Your task to perform on an android device: turn on improve location accuracy Image 0: 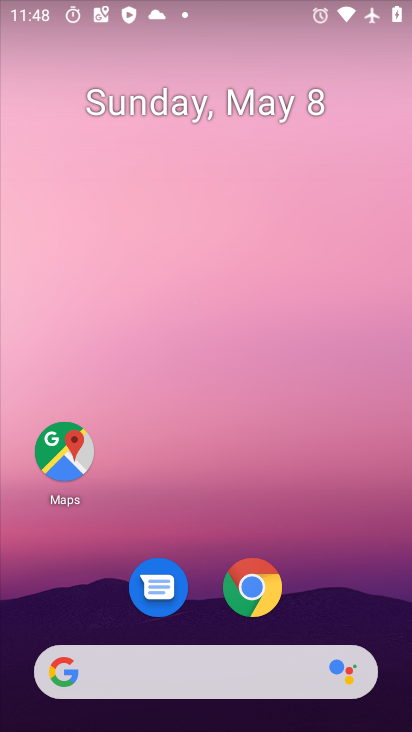
Step 0: drag from (345, 559) to (405, 524)
Your task to perform on an android device: turn on improve location accuracy Image 1: 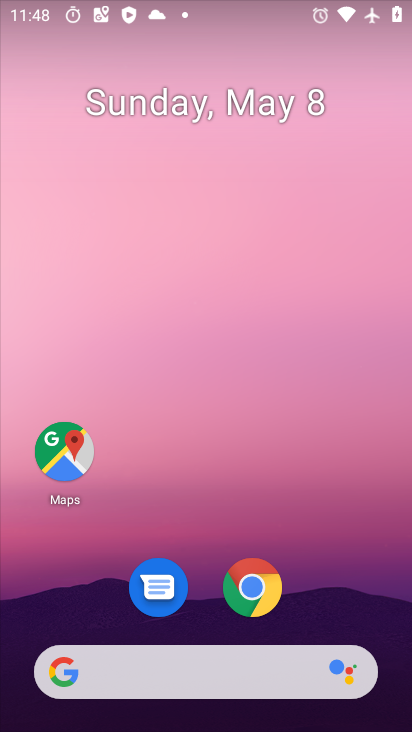
Step 1: drag from (338, 596) to (164, 247)
Your task to perform on an android device: turn on improve location accuracy Image 2: 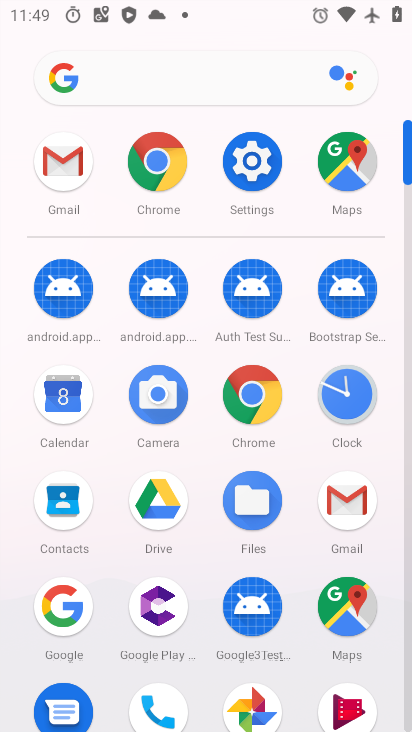
Step 2: click (244, 159)
Your task to perform on an android device: turn on improve location accuracy Image 3: 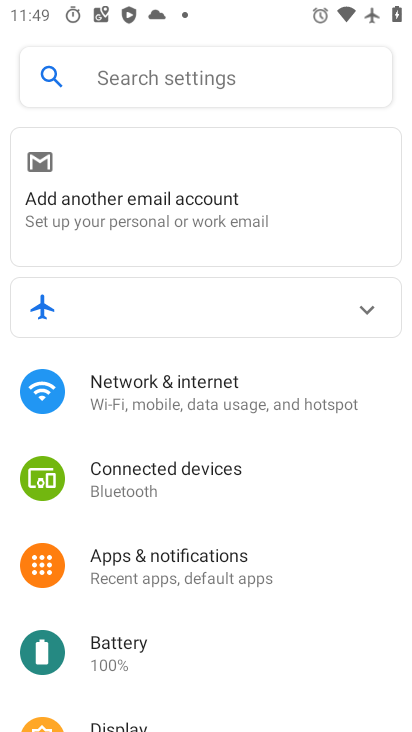
Step 3: drag from (234, 550) to (151, 220)
Your task to perform on an android device: turn on improve location accuracy Image 4: 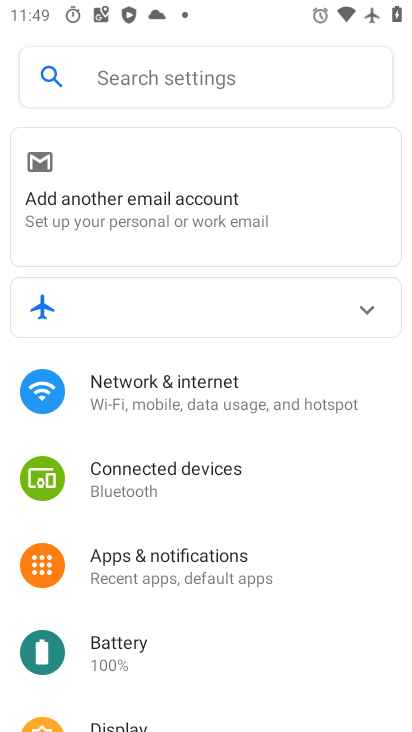
Step 4: drag from (151, 583) to (149, 288)
Your task to perform on an android device: turn on improve location accuracy Image 5: 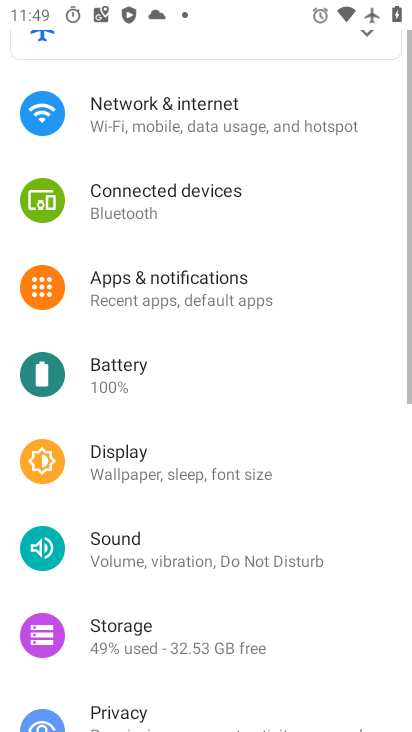
Step 5: click (282, 244)
Your task to perform on an android device: turn on improve location accuracy Image 6: 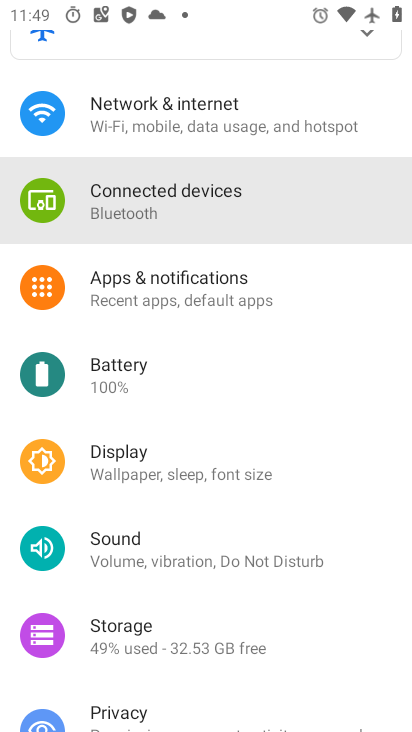
Step 6: drag from (266, 467) to (300, 120)
Your task to perform on an android device: turn on improve location accuracy Image 7: 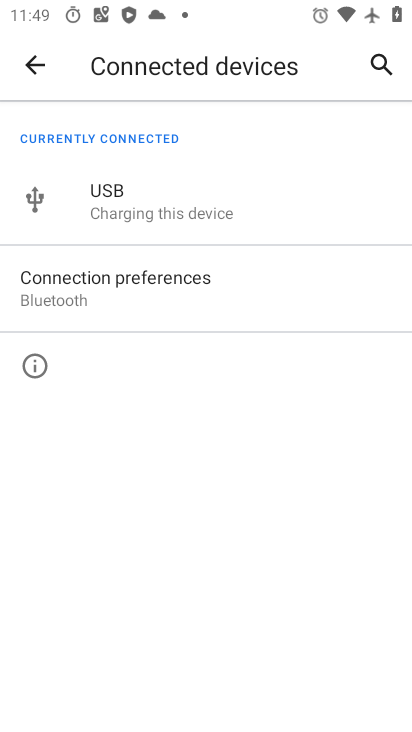
Step 7: click (28, 61)
Your task to perform on an android device: turn on improve location accuracy Image 8: 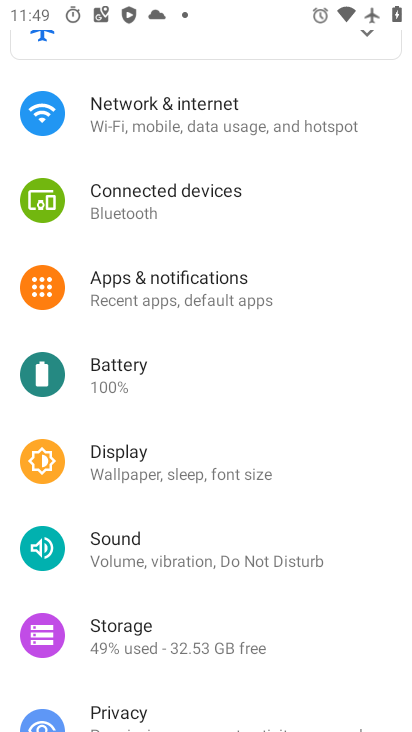
Step 8: drag from (167, 517) to (163, 210)
Your task to perform on an android device: turn on improve location accuracy Image 9: 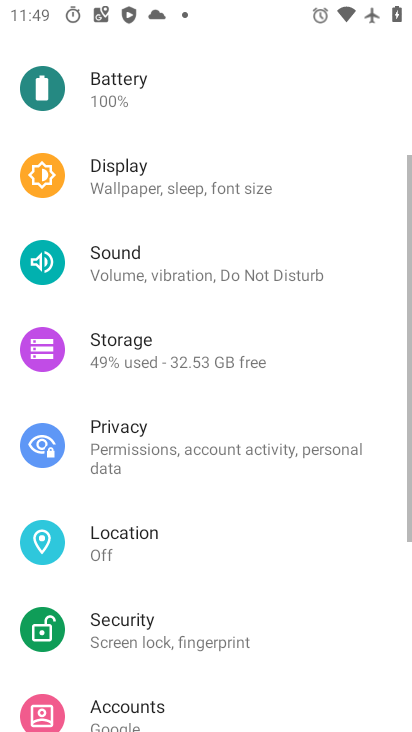
Step 9: drag from (213, 453) to (177, 150)
Your task to perform on an android device: turn on improve location accuracy Image 10: 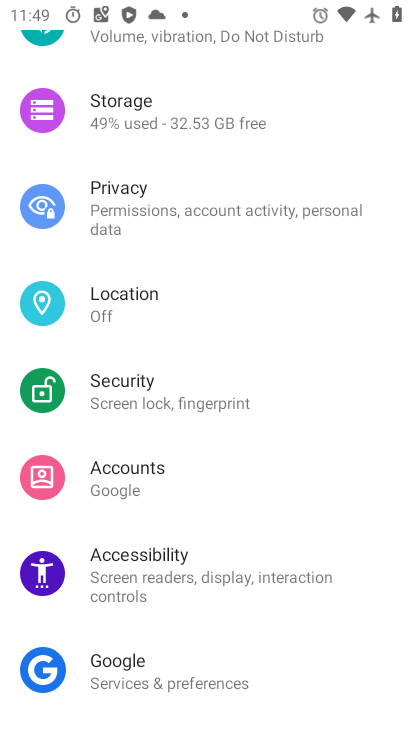
Step 10: click (138, 304)
Your task to perform on an android device: turn on improve location accuracy Image 11: 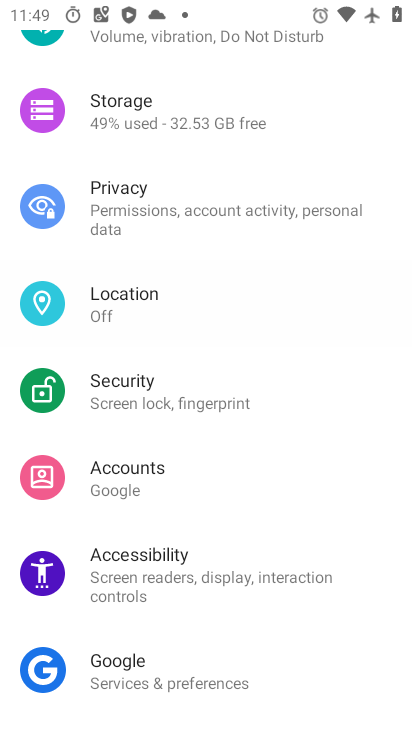
Step 11: click (139, 304)
Your task to perform on an android device: turn on improve location accuracy Image 12: 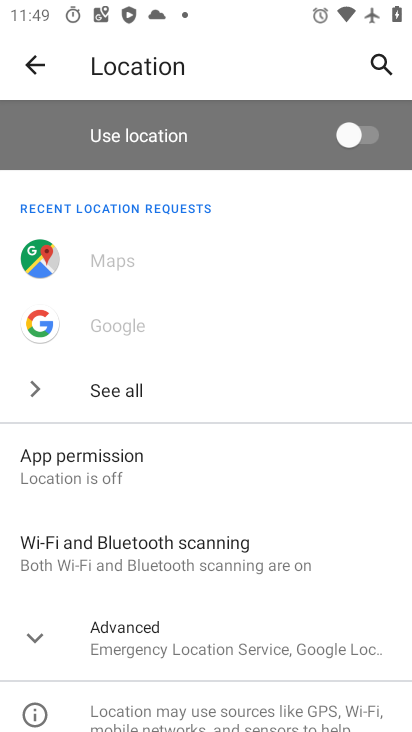
Step 12: click (151, 631)
Your task to perform on an android device: turn on improve location accuracy Image 13: 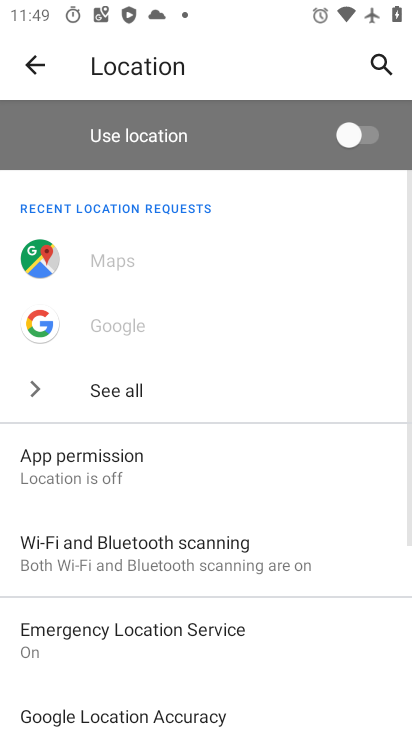
Step 13: drag from (148, 631) to (93, 292)
Your task to perform on an android device: turn on improve location accuracy Image 14: 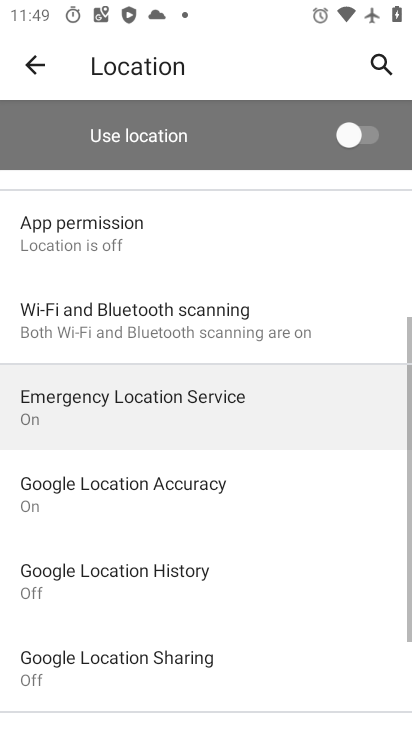
Step 14: drag from (207, 562) to (273, 88)
Your task to perform on an android device: turn on improve location accuracy Image 15: 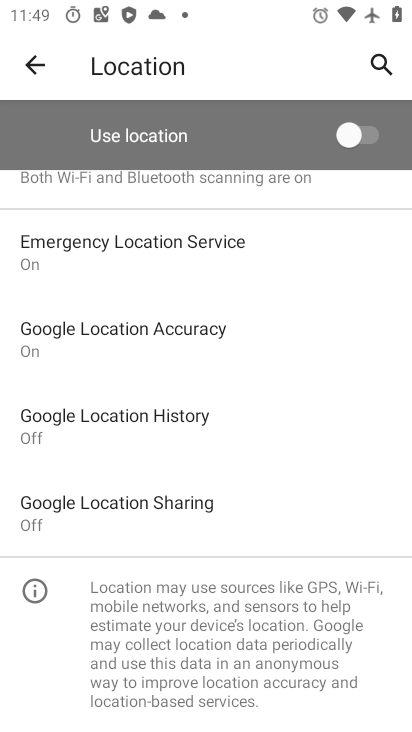
Step 15: click (140, 326)
Your task to perform on an android device: turn on improve location accuracy Image 16: 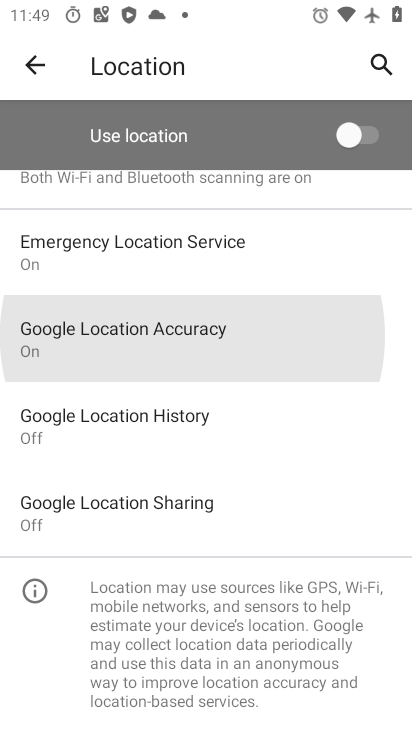
Step 16: click (140, 326)
Your task to perform on an android device: turn on improve location accuracy Image 17: 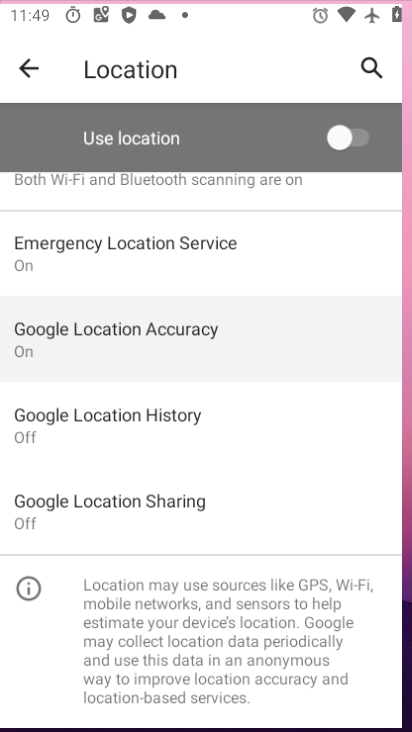
Step 17: click (140, 326)
Your task to perform on an android device: turn on improve location accuracy Image 18: 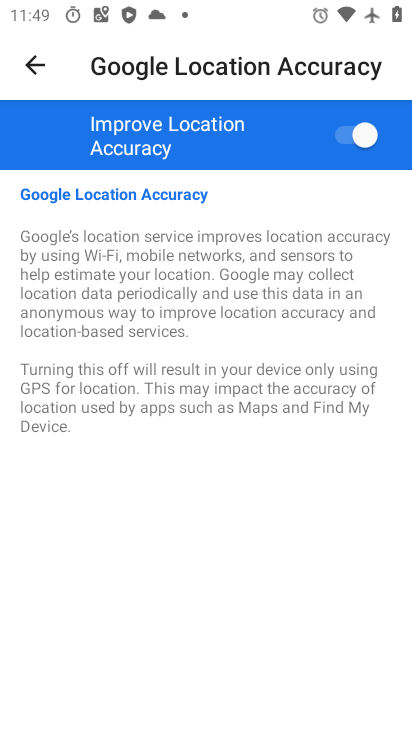
Step 18: task complete